Your task to perform on an android device: Show me popular games on the Play Store Image 0: 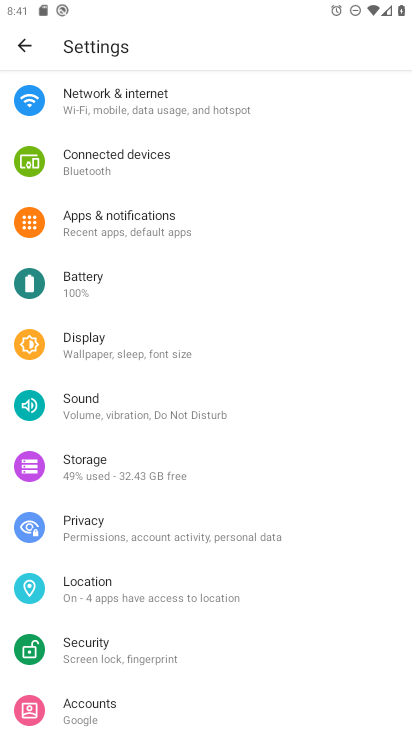
Step 0: press home button
Your task to perform on an android device: Show me popular games on the Play Store Image 1: 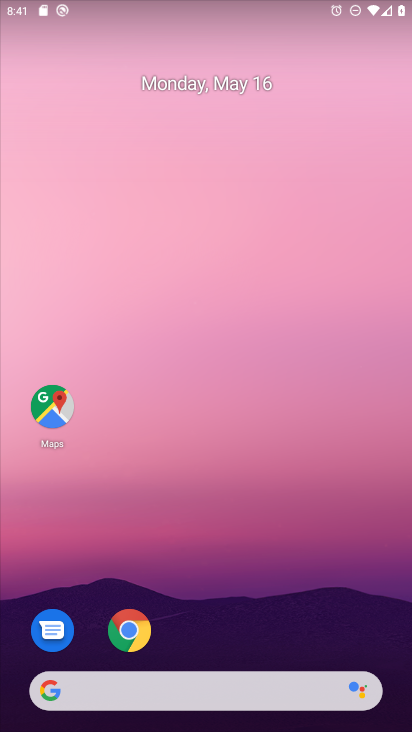
Step 1: drag from (220, 594) to (191, 97)
Your task to perform on an android device: Show me popular games on the Play Store Image 2: 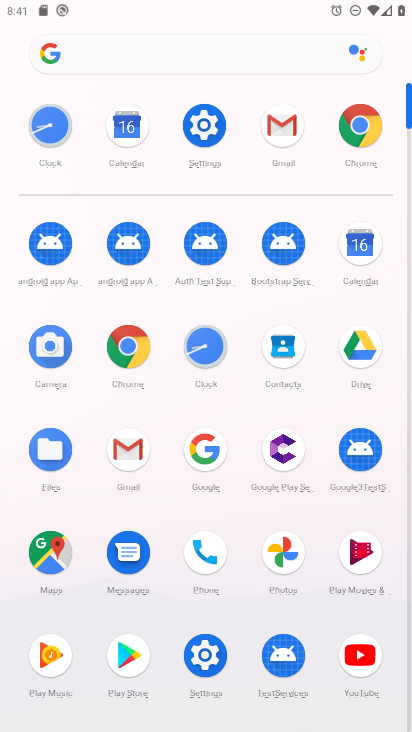
Step 2: click (121, 654)
Your task to perform on an android device: Show me popular games on the Play Store Image 3: 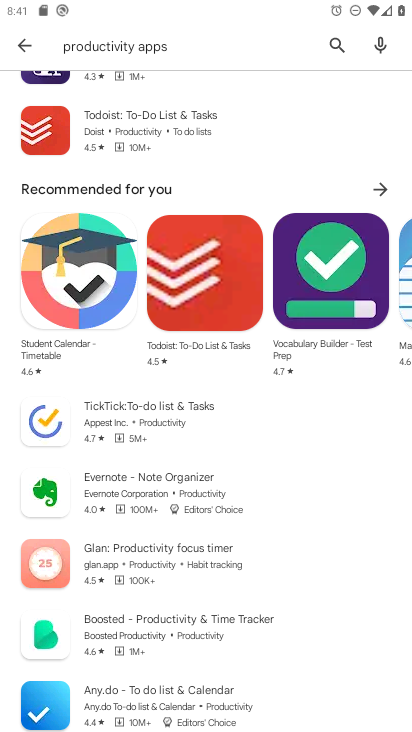
Step 3: click (354, 36)
Your task to perform on an android device: Show me popular games on the Play Store Image 4: 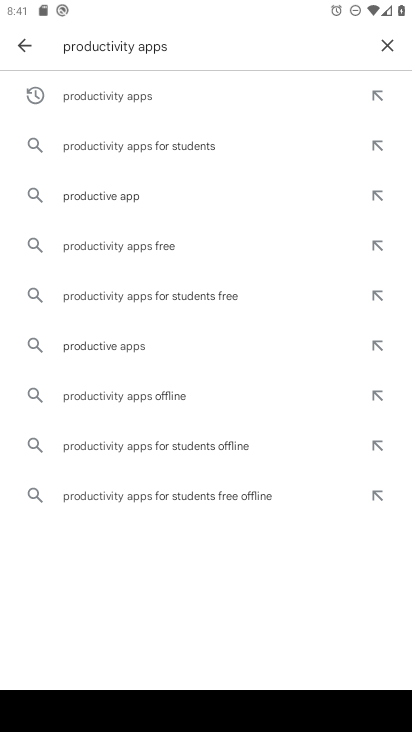
Step 4: click (399, 35)
Your task to perform on an android device: Show me popular games on the Play Store Image 5: 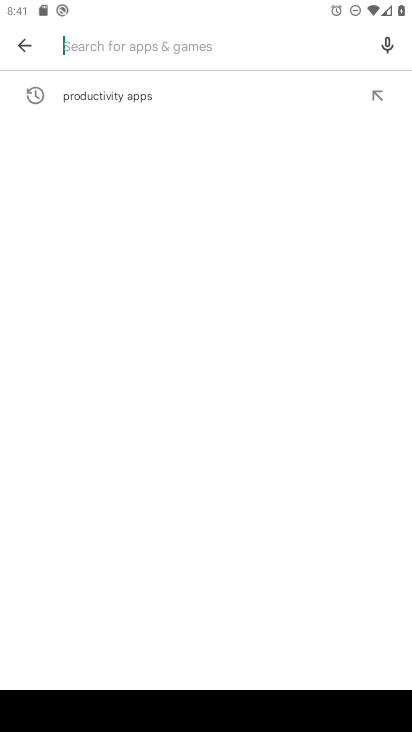
Step 5: type "popular game"
Your task to perform on an android device: Show me popular games on the Play Store Image 6: 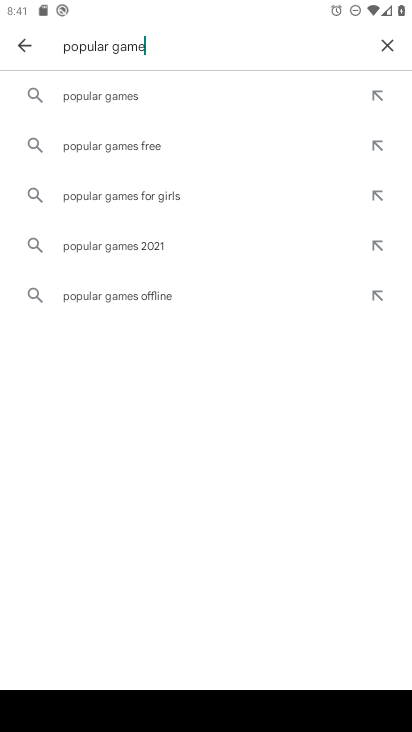
Step 6: click (153, 87)
Your task to perform on an android device: Show me popular games on the Play Store Image 7: 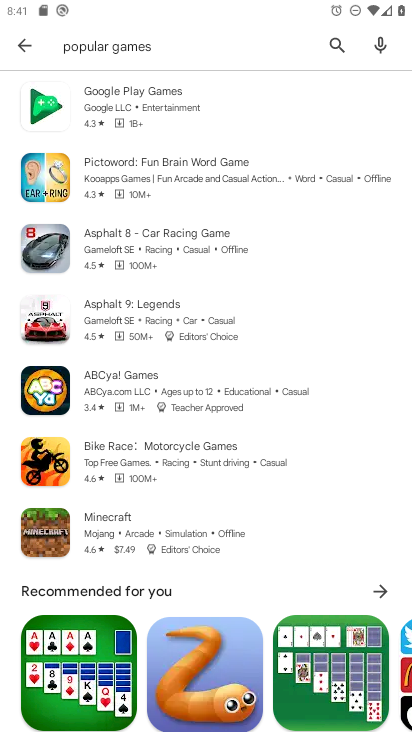
Step 7: task complete